Your task to perform on an android device: set the timer Image 0: 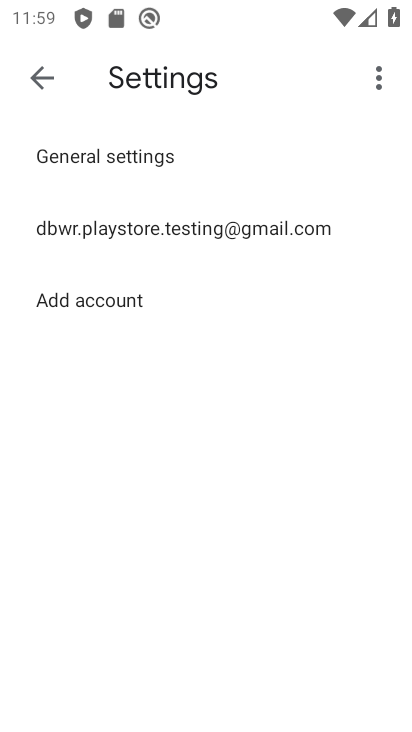
Step 0: press home button
Your task to perform on an android device: set the timer Image 1: 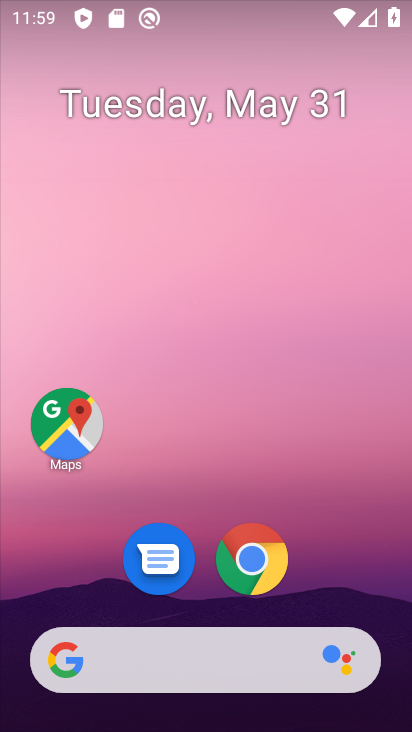
Step 1: drag from (91, 581) to (205, 126)
Your task to perform on an android device: set the timer Image 2: 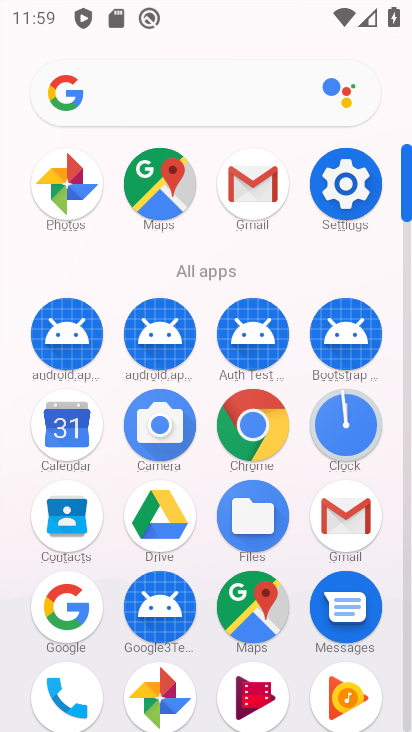
Step 2: click (326, 436)
Your task to perform on an android device: set the timer Image 3: 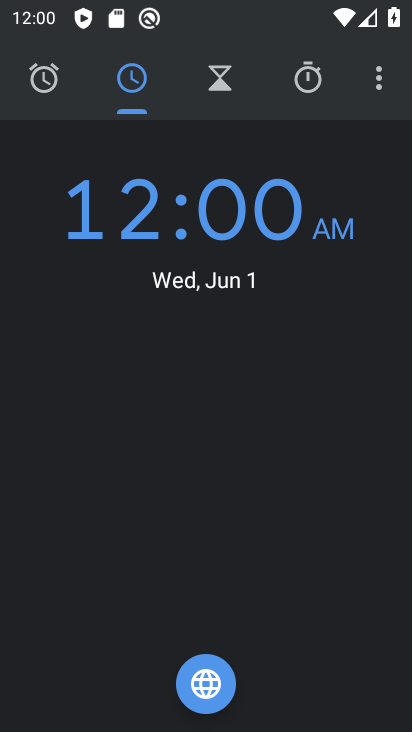
Step 3: click (229, 86)
Your task to perform on an android device: set the timer Image 4: 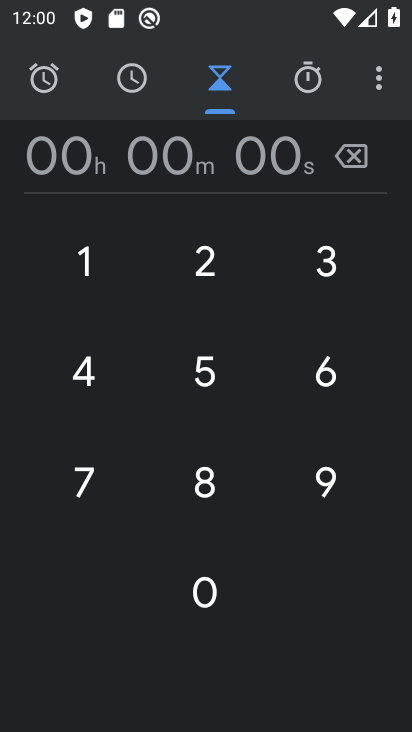
Step 4: click (105, 254)
Your task to perform on an android device: set the timer Image 5: 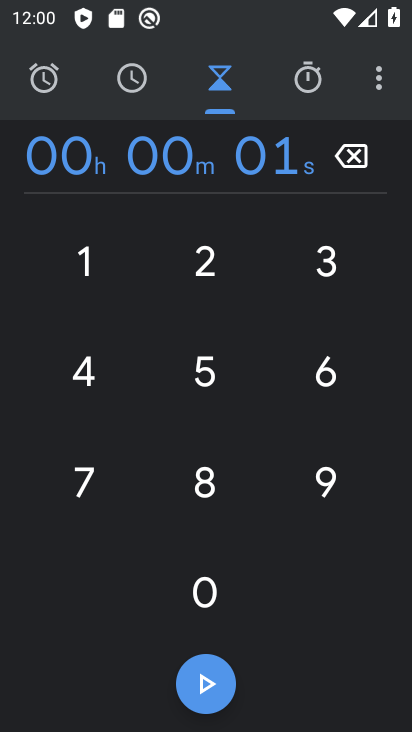
Step 5: click (101, 258)
Your task to perform on an android device: set the timer Image 6: 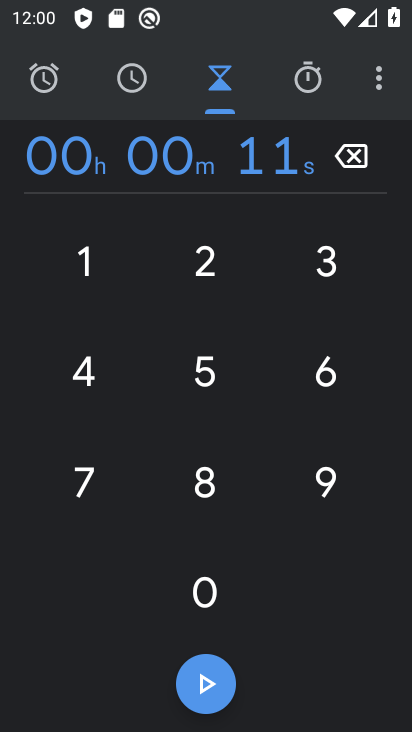
Step 6: click (113, 259)
Your task to perform on an android device: set the timer Image 7: 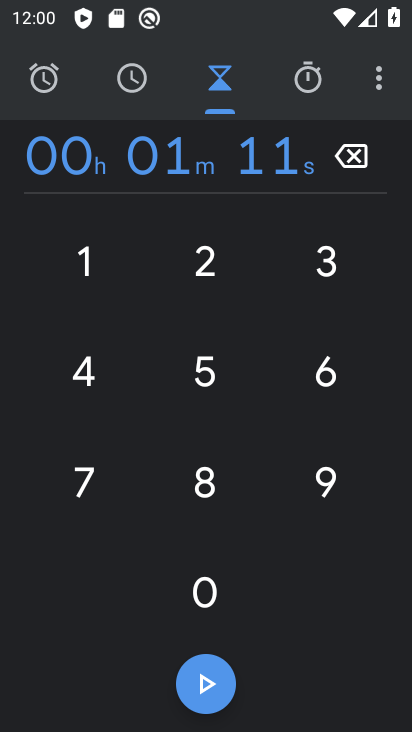
Step 7: click (117, 262)
Your task to perform on an android device: set the timer Image 8: 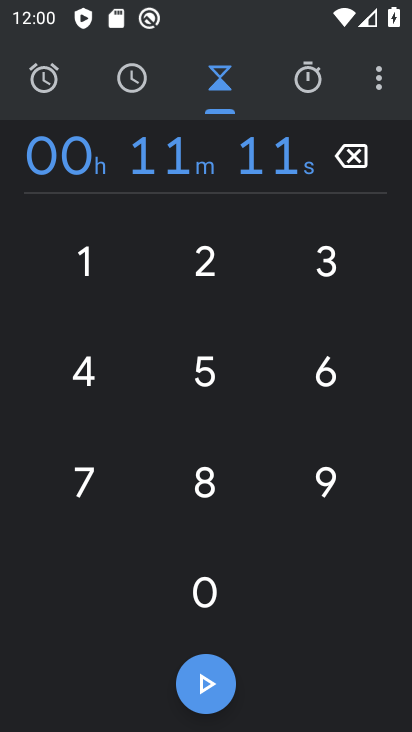
Step 8: click (234, 667)
Your task to perform on an android device: set the timer Image 9: 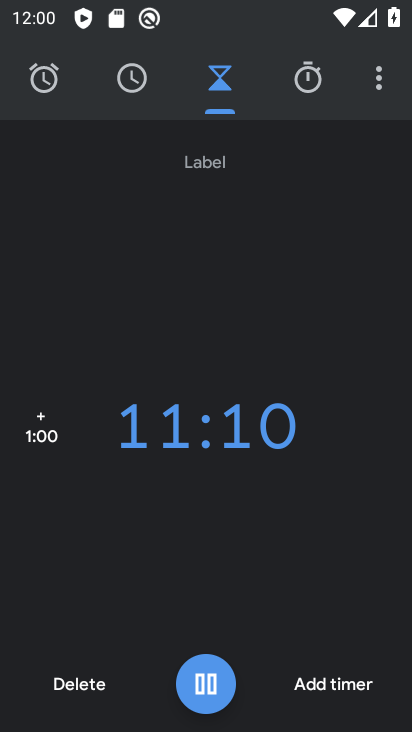
Step 9: task complete